Your task to perform on an android device: Open internet settings Image 0: 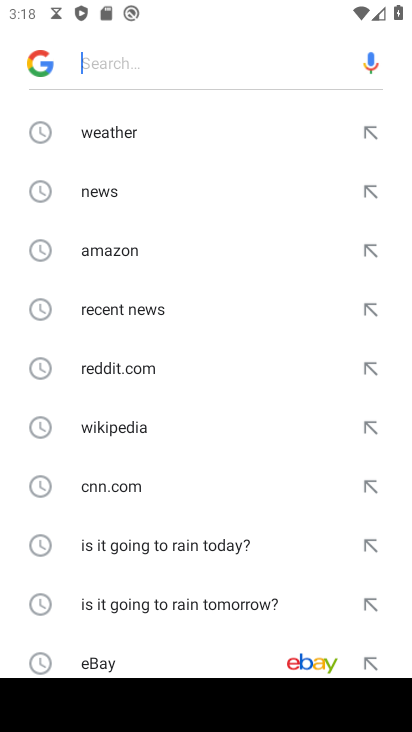
Step 0: press home button
Your task to perform on an android device: Open internet settings Image 1: 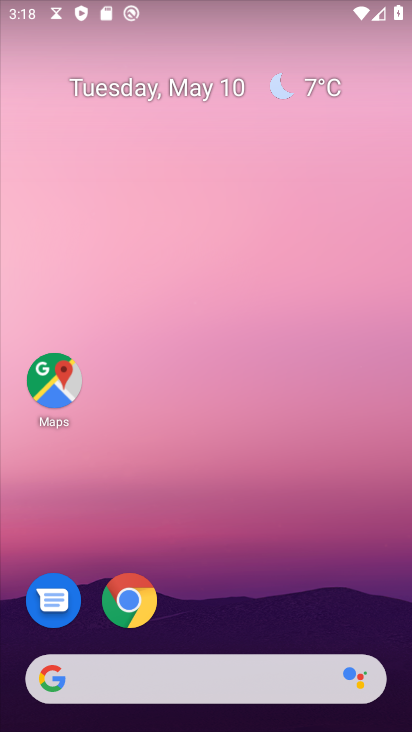
Step 1: drag from (302, 587) to (256, 115)
Your task to perform on an android device: Open internet settings Image 2: 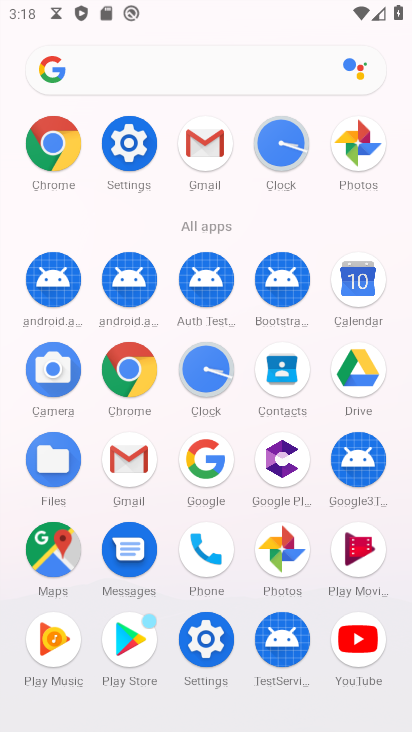
Step 2: click (119, 144)
Your task to perform on an android device: Open internet settings Image 3: 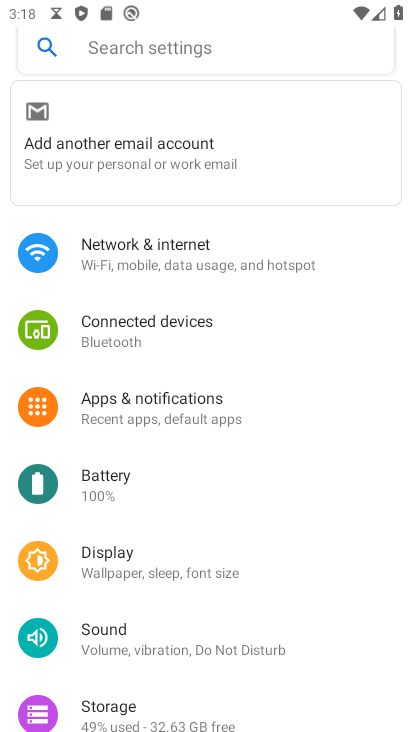
Step 3: click (183, 263)
Your task to perform on an android device: Open internet settings Image 4: 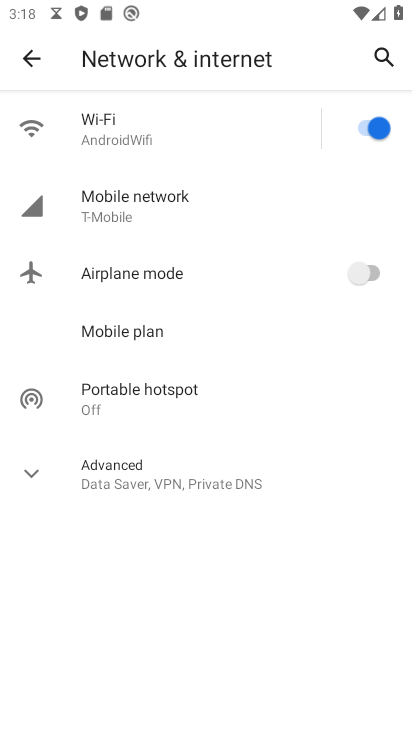
Step 4: drag from (208, 727) to (230, 335)
Your task to perform on an android device: Open internet settings Image 5: 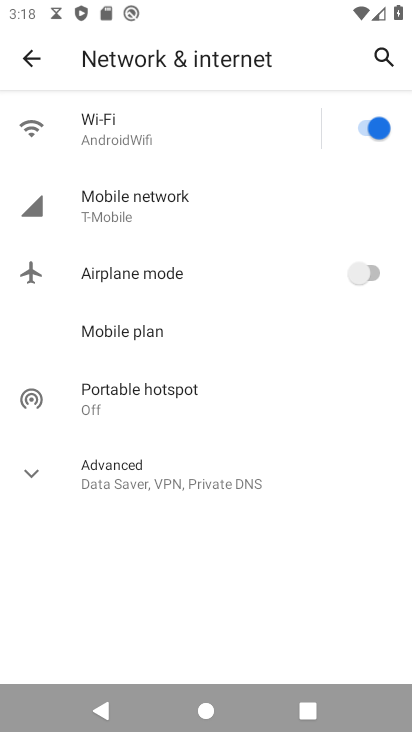
Step 5: click (210, 216)
Your task to perform on an android device: Open internet settings Image 6: 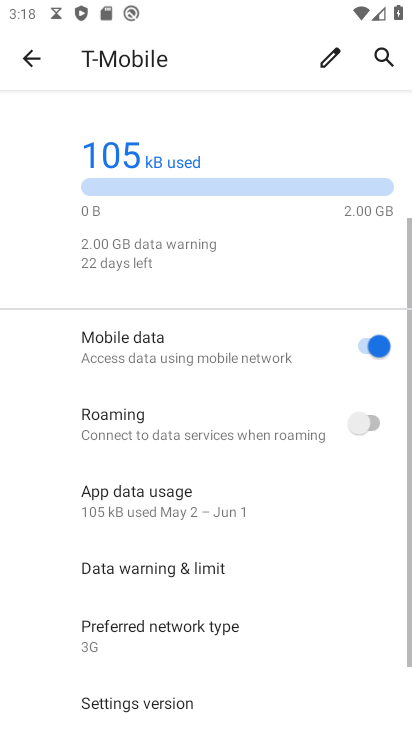
Step 6: task complete